Your task to perform on an android device: open chrome and create a bookmark for the current page Image 0: 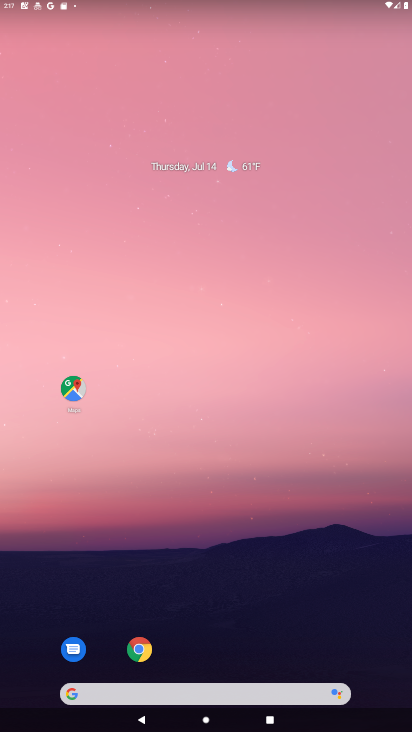
Step 0: drag from (161, 693) to (282, 4)
Your task to perform on an android device: open chrome and create a bookmark for the current page Image 1: 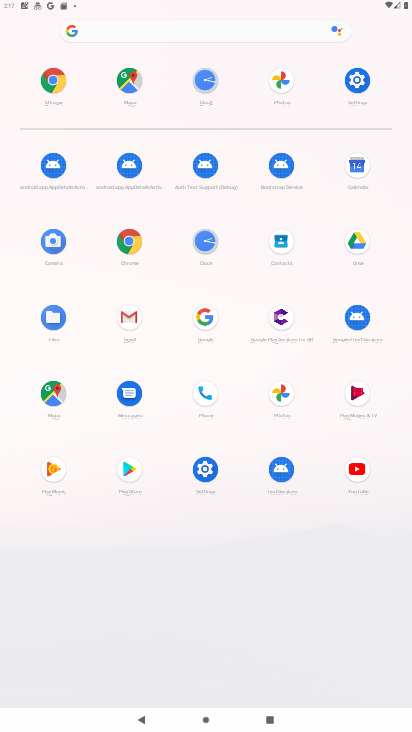
Step 1: click (129, 244)
Your task to perform on an android device: open chrome and create a bookmark for the current page Image 2: 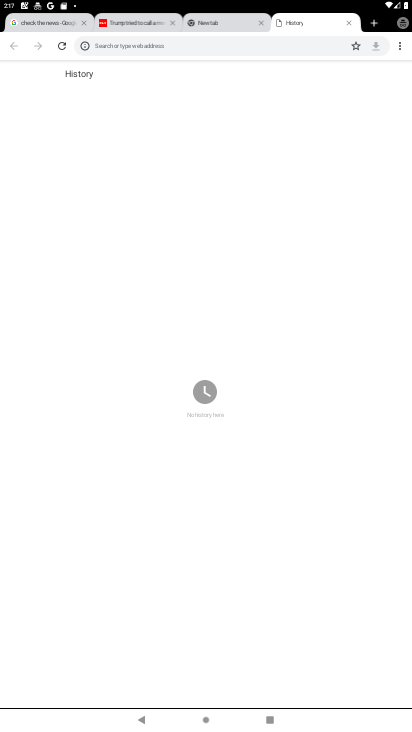
Step 2: click (404, 40)
Your task to perform on an android device: open chrome and create a bookmark for the current page Image 3: 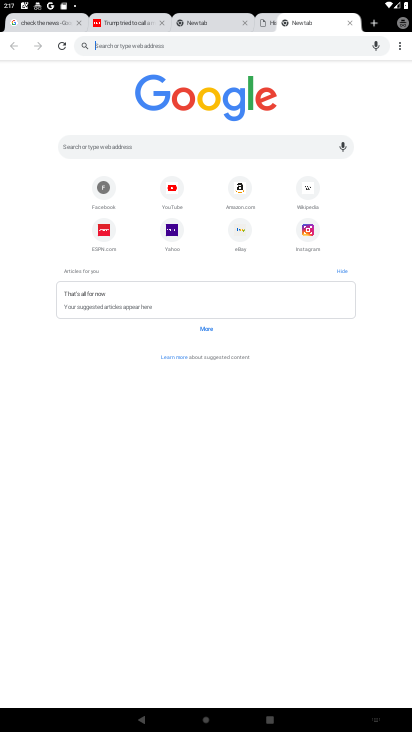
Step 3: click (405, 51)
Your task to perform on an android device: open chrome and create a bookmark for the current page Image 4: 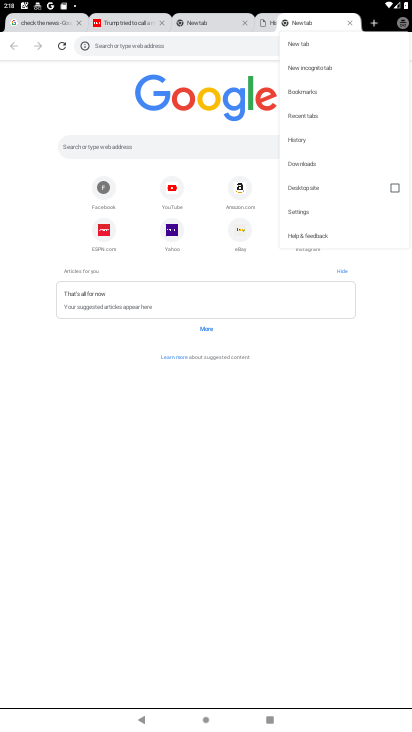
Step 4: click (317, 124)
Your task to perform on an android device: open chrome and create a bookmark for the current page Image 5: 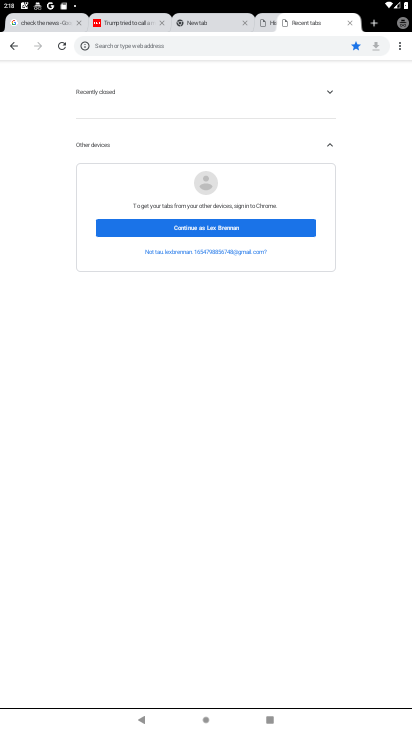
Step 5: task complete